Your task to perform on an android device: check android version Image 0: 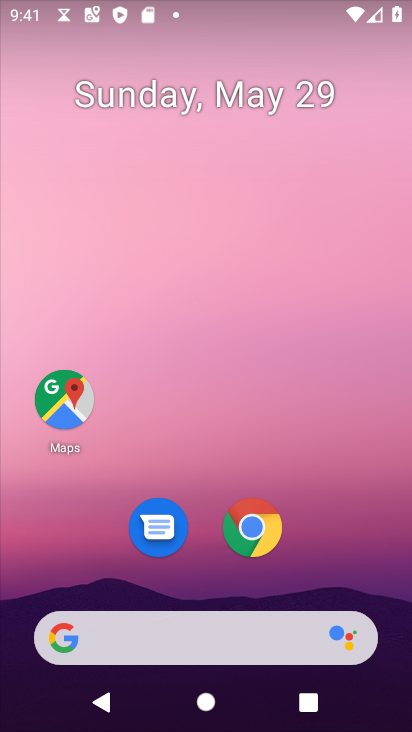
Step 0: press home button
Your task to perform on an android device: check android version Image 1: 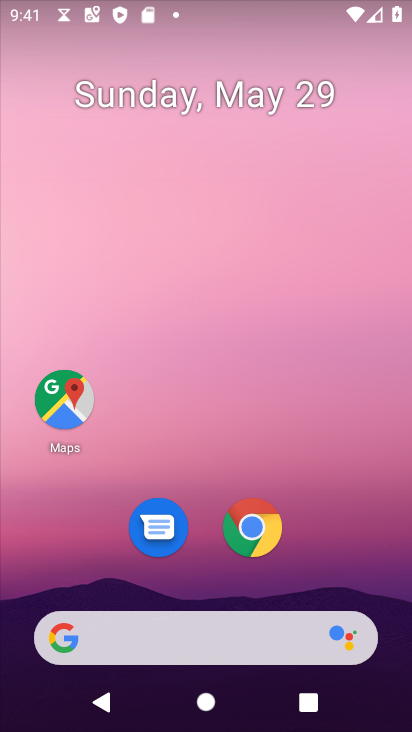
Step 1: drag from (214, 629) to (353, 44)
Your task to perform on an android device: check android version Image 2: 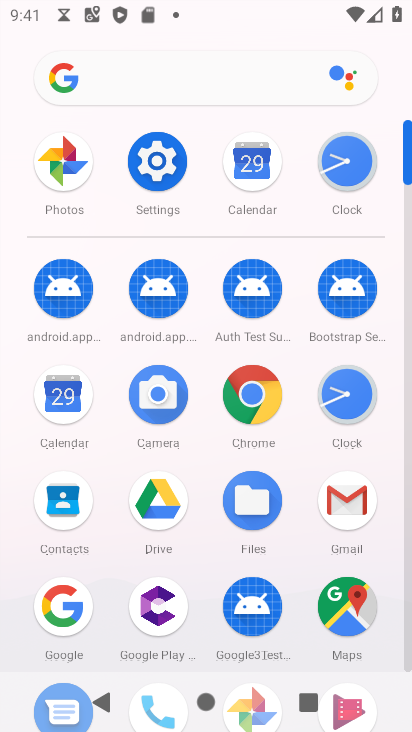
Step 2: click (162, 167)
Your task to perform on an android device: check android version Image 3: 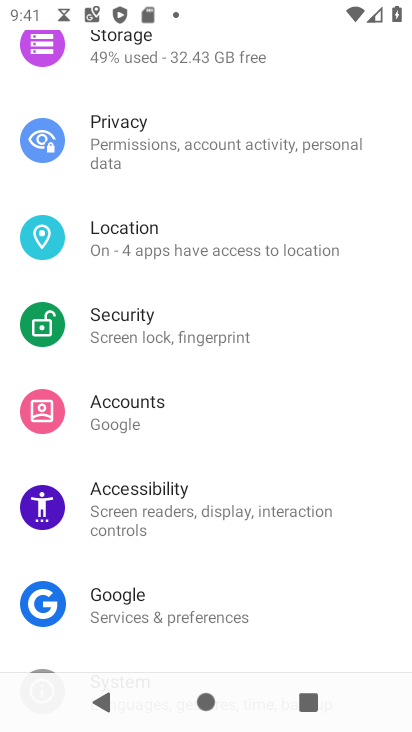
Step 3: drag from (214, 595) to (393, 83)
Your task to perform on an android device: check android version Image 4: 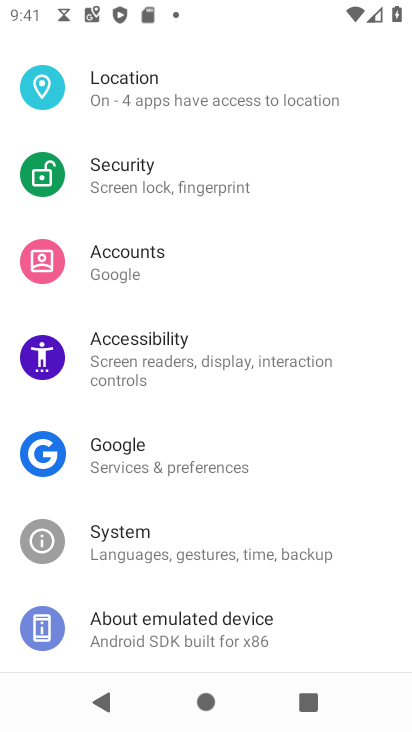
Step 4: click (194, 643)
Your task to perform on an android device: check android version Image 5: 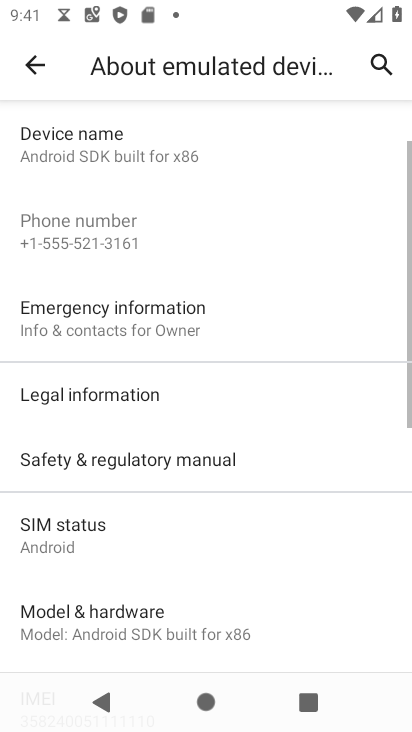
Step 5: drag from (213, 572) to (353, 144)
Your task to perform on an android device: check android version Image 6: 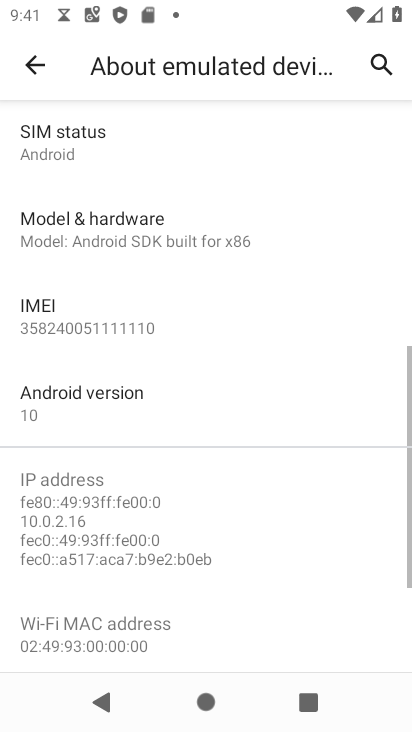
Step 6: click (84, 392)
Your task to perform on an android device: check android version Image 7: 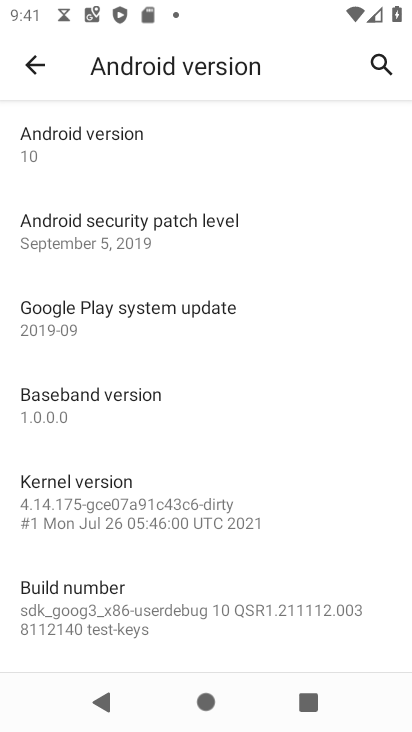
Step 7: task complete